Your task to perform on an android device: What time is it in London? Image 0: 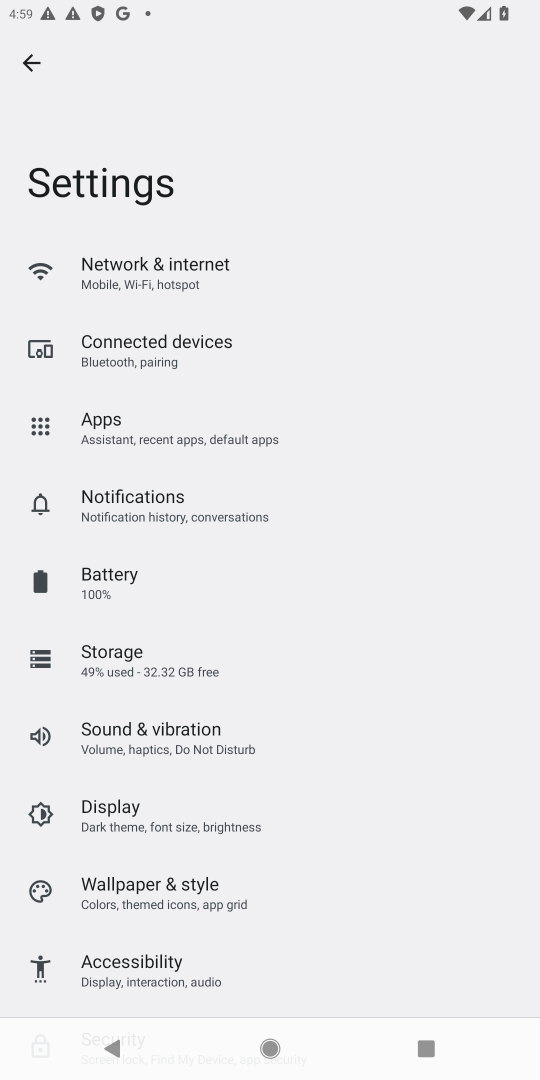
Step 0: press home button
Your task to perform on an android device: What time is it in London? Image 1: 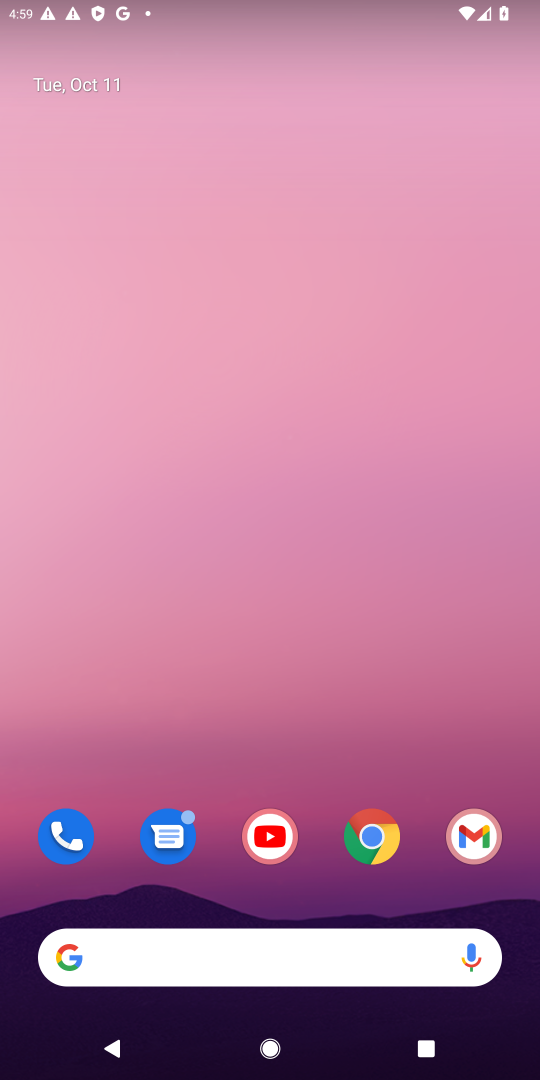
Step 1: click (378, 845)
Your task to perform on an android device: What time is it in London? Image 2: 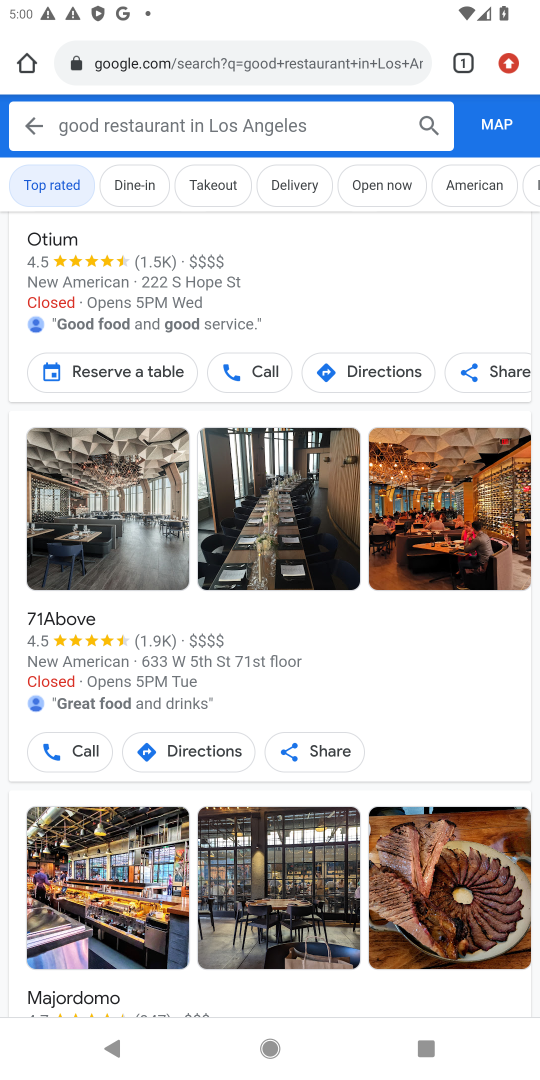
Step 2: click (283, 62)
Your task to perform on an android device: What time is it in London? Image 3: 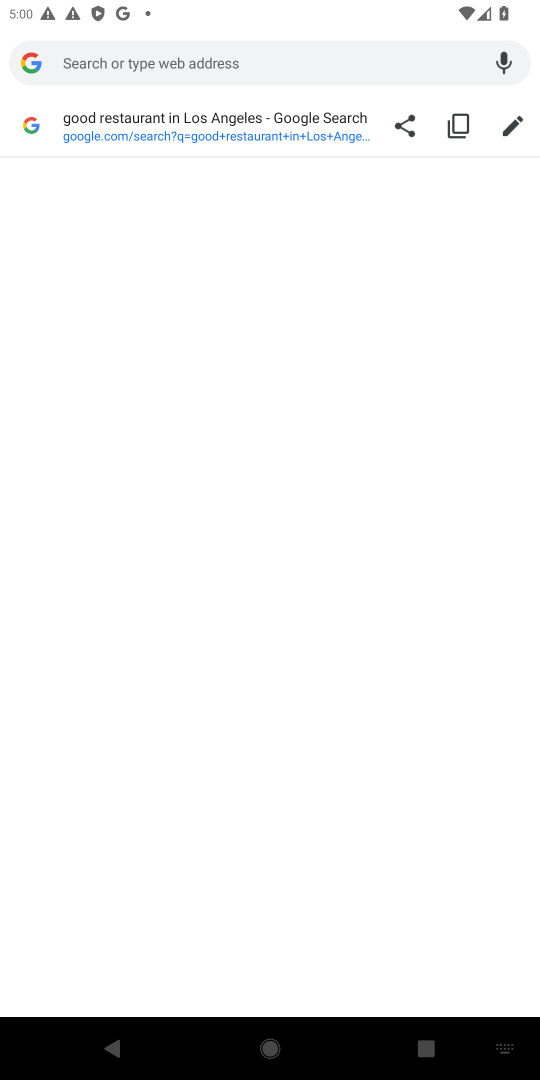
Step 3: type "What time is it in London"
Your task to perform on an android device: What time is it in London? Image 4: 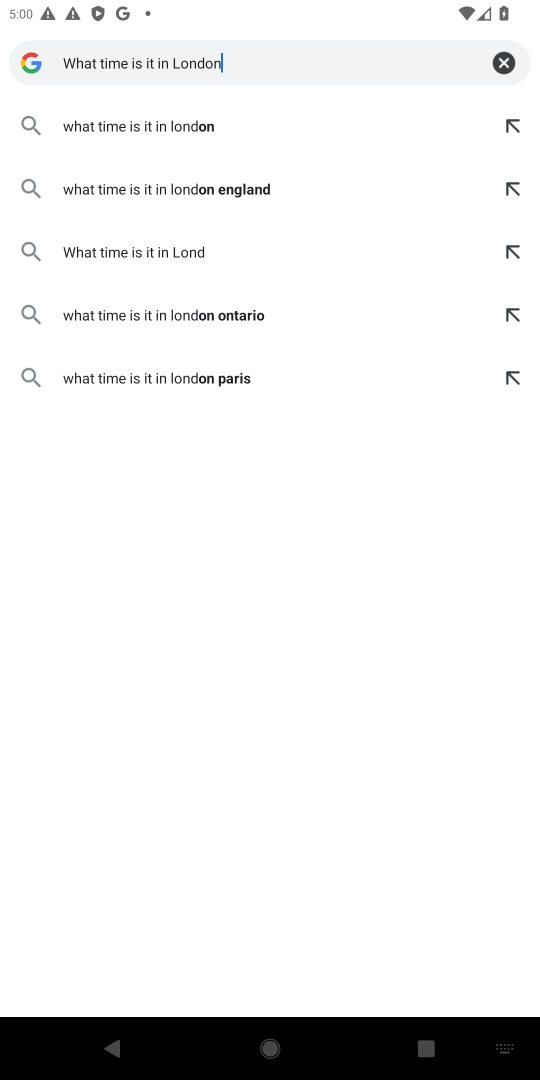
Step 4: press enter
Your task to perform on an android device: What time is it in London? Image 5: 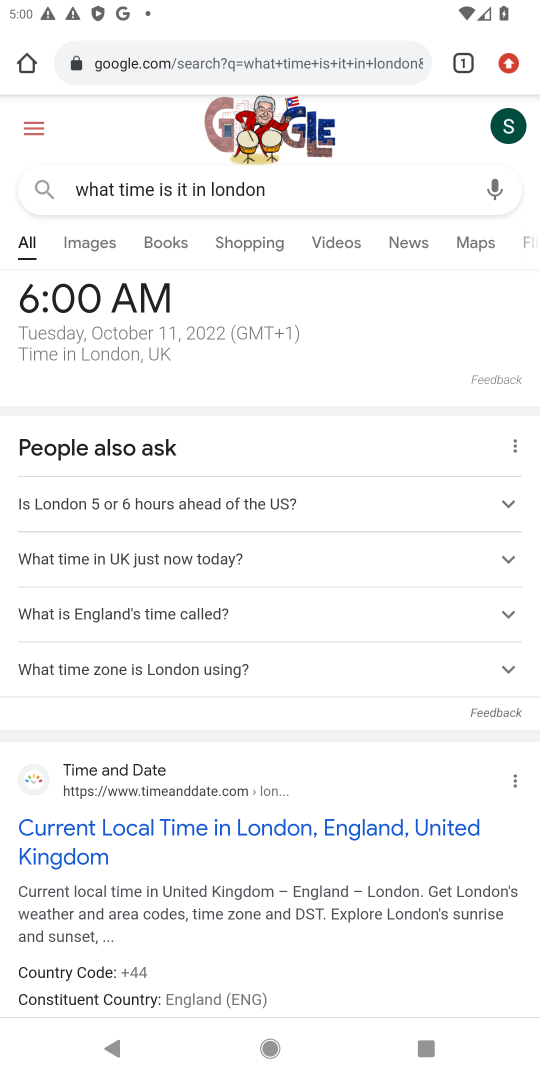
Step 5: task complete